Your task to perform on an android device: Open eBay Image 0: 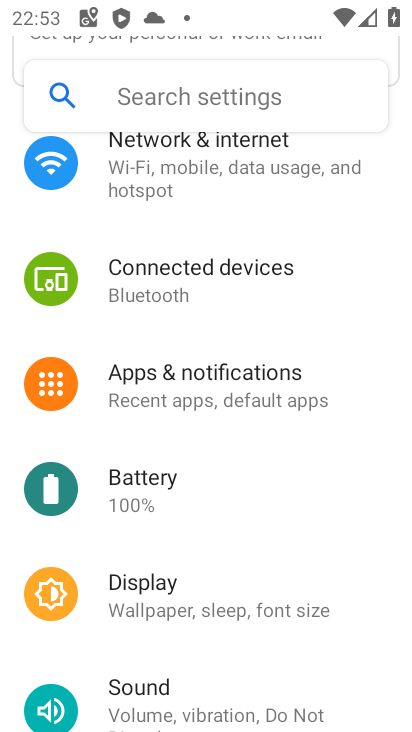
Step 0: press home button
Your task to perform on an android device: Open eBay Image 1: 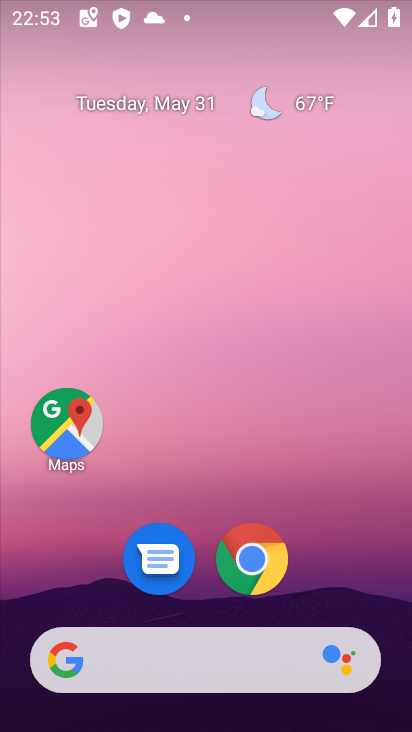
Step 1: drag from (330, 573) to (316, 80)
Your task to perform on an android device: Open eBay Image 2: 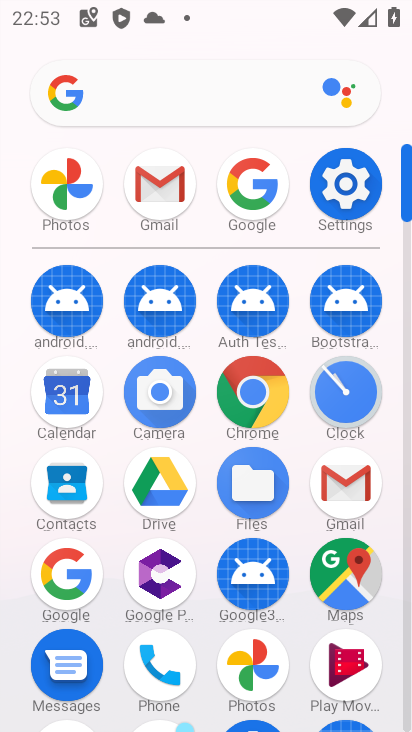
Step 2: click (254, 179)
Your task to perform on an android device: Open eBay Image 3: 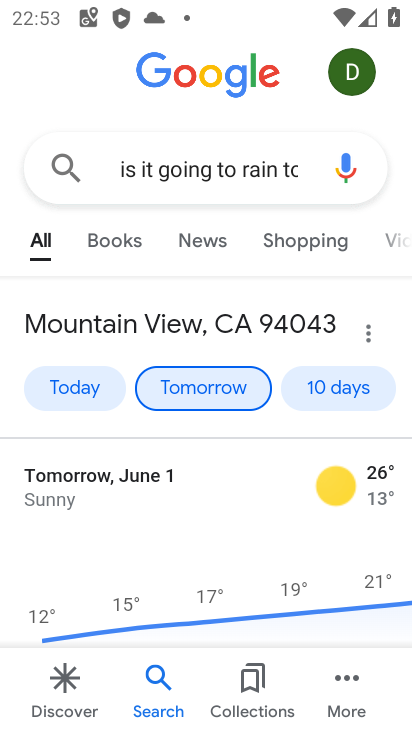
Step 3: click (261, 165)
Your task to perform on an android device: Open eBay Image 4: 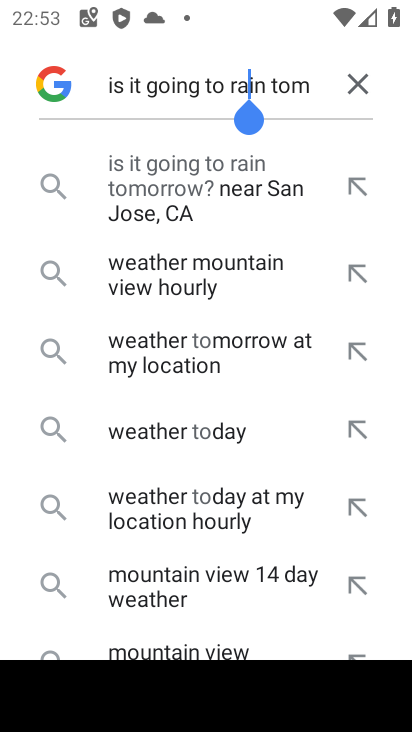
Step 4: click (352, 88)
Your task to perform on an android device: Open eBay Image 5: 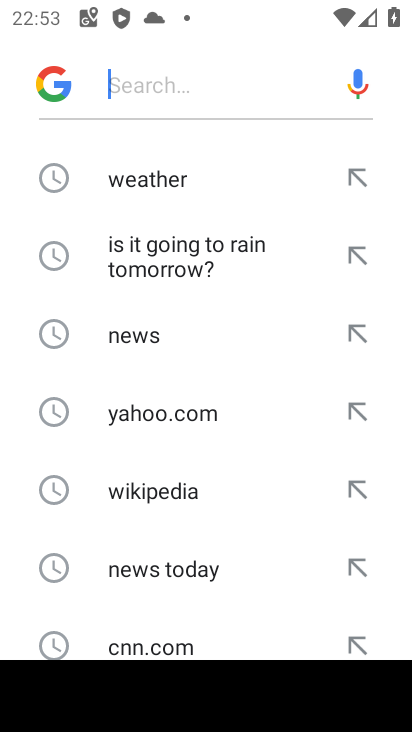
Step 5: drag from (201, 569) to (233, 166)
Your task to perform on an android device: Open eBay Image 6: 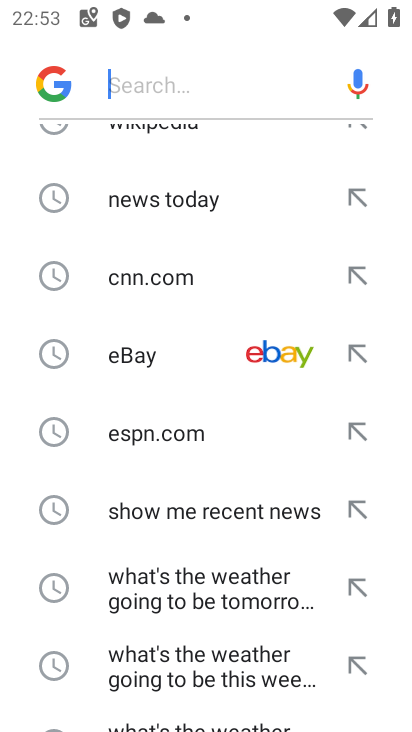
Step 6: click (142, 347)
Your task to perform on an android device: Open eBay Image 7: 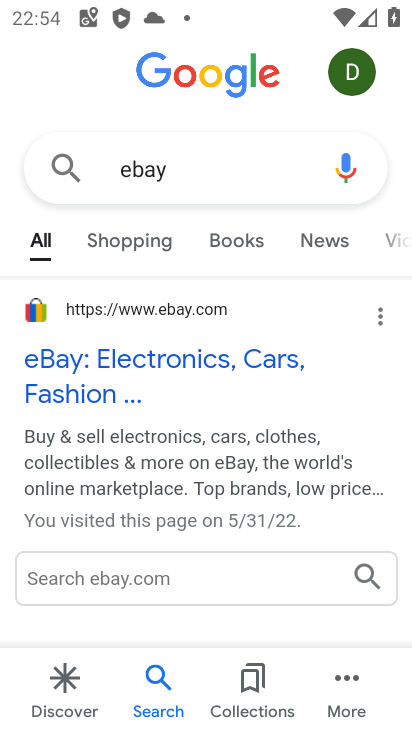
Step 7: task complete